Your task to perform on an android device: Go to CNN.com Image 0: 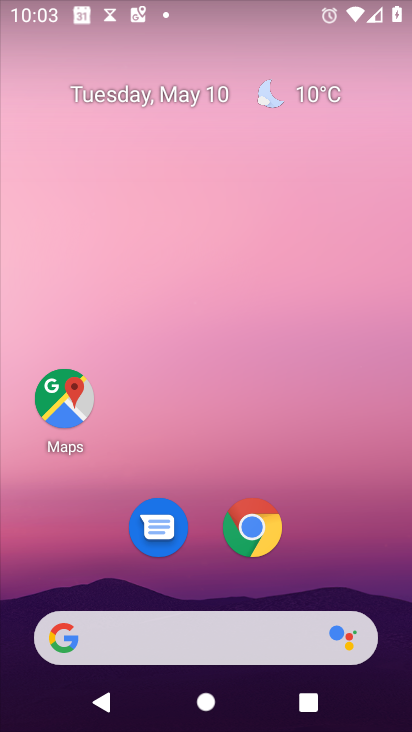
Step 0: click (253, 537)
Your task to perform on an android device: Go to CNN.com Image 1: 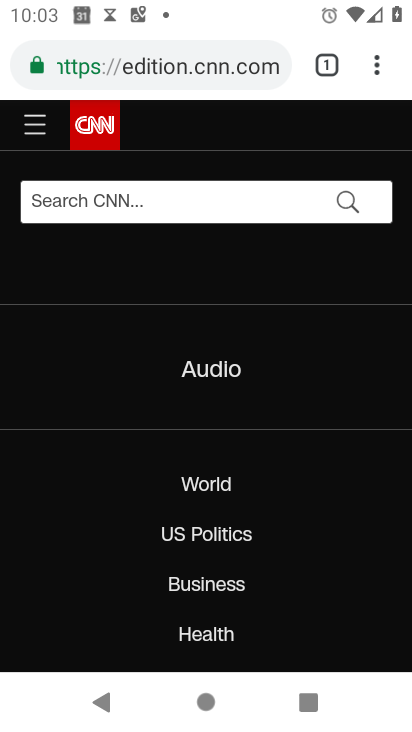
Step 1: click (253, 537)
Your task to perform on an android device: Go to CNN.com Image 2: 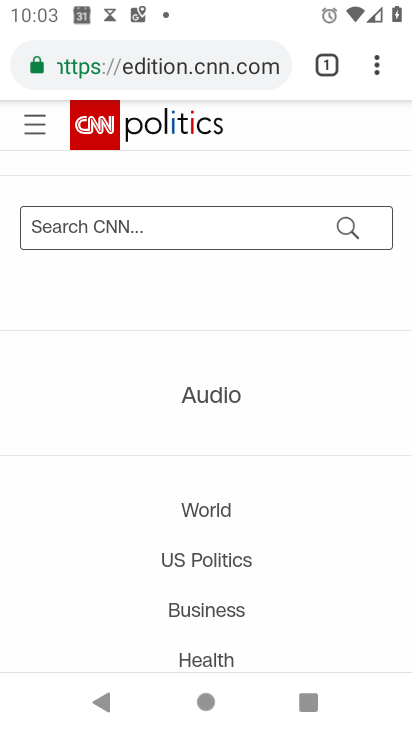
Step 2: click (362, 405)
Your task to perform on an android device: Go to CNN.com Image 3: 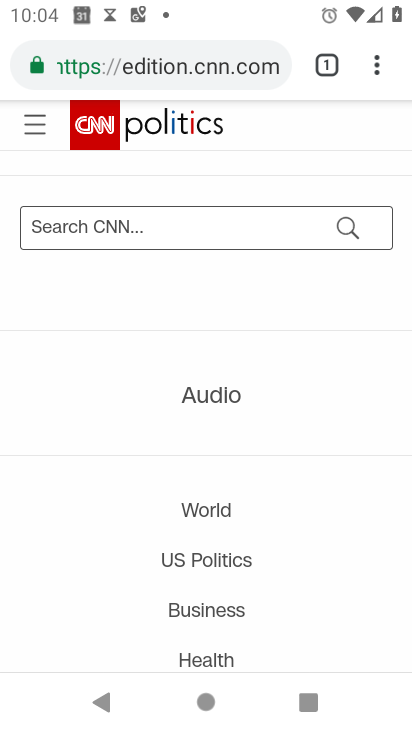
Step 3: task complete